Your task to perform on an android device: Go to Android settings Image 0: 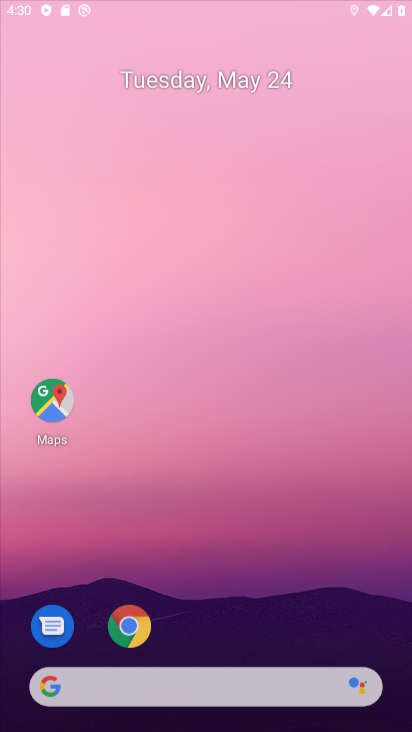
Step 0: drag from (205, 145) to (202, 110)
Your task to perform on an android device: Go to Android settings Image 1: 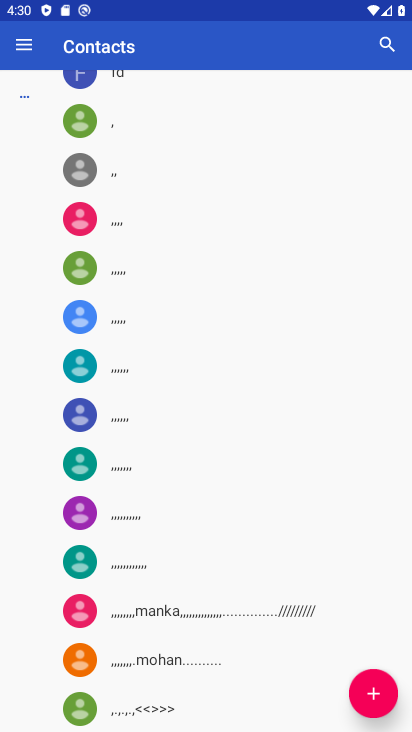
Step 1: press home button
Your task to perform on an android device: Go to Android settings Image 2: 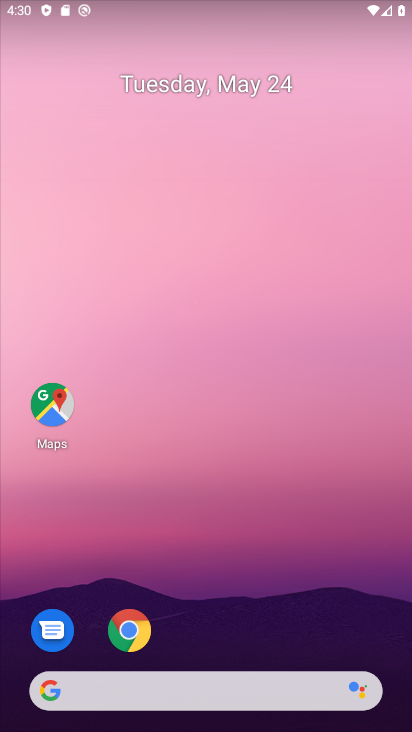
Step 2: drag from (204, 646) to (241, 164)
Your task to perform on an android device: Go to Android settings Image 3: 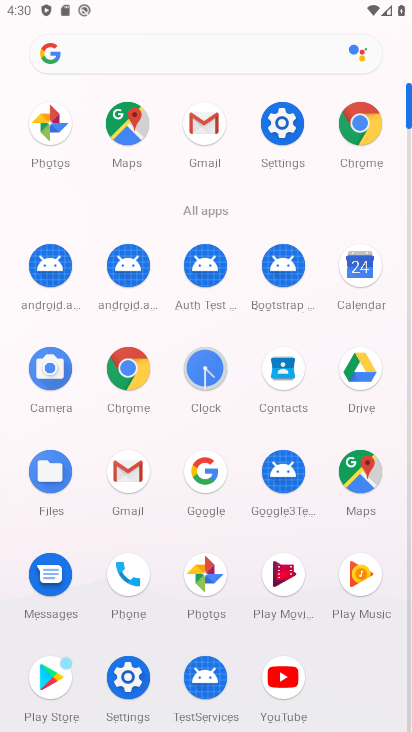
Step 3: click (276, 111)
Your task to perform on an android device: Go to Android settings Image 4: 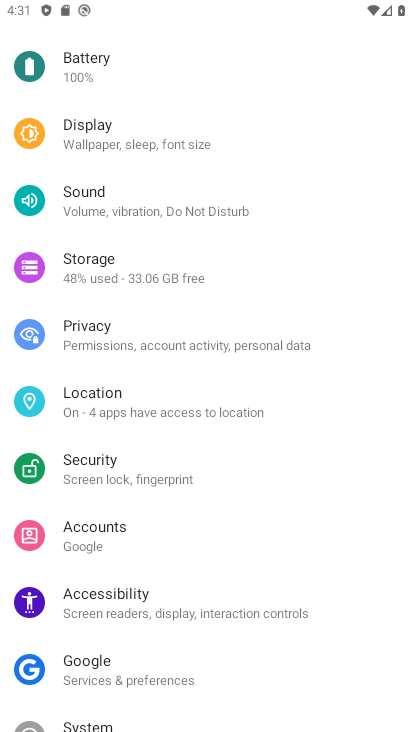
Step 4: task complete